Your task to perform on an android device: turn on location history Image 0: 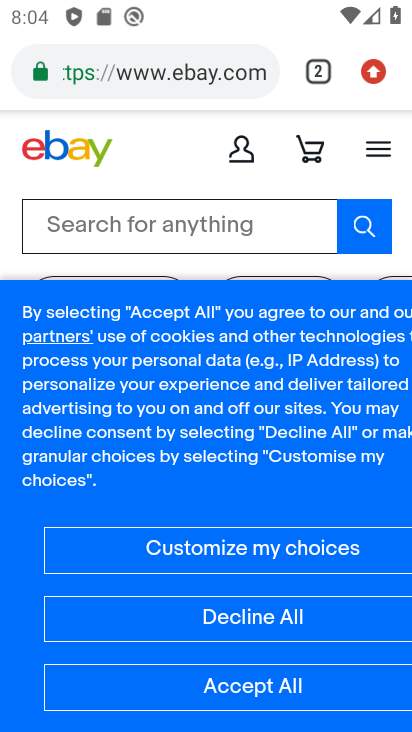
Step 0: press home button
Your task to perform on an android device: turn on location history Image 1: 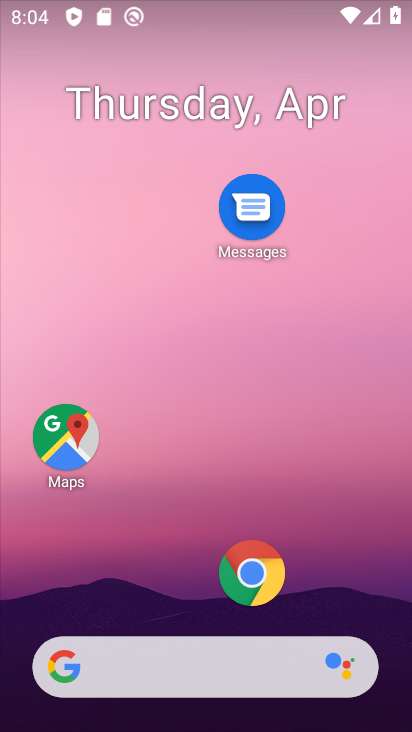
Step 1: drag from (192, 611) to (235, 107)
Your task to perform on an android device: turn on location history Image 2: 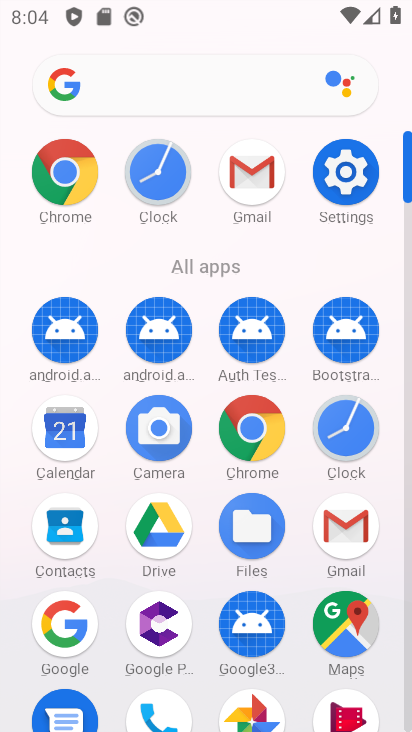
Step 2: click (340, 166)
Your task to perform on an android device: turn on location history Image 3: 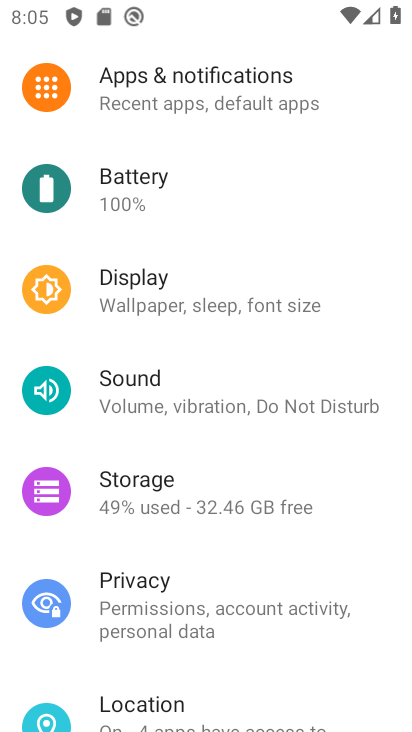
Step 3: click (201, 705)
Your task to perform on an android device: turn on location history Image 4: 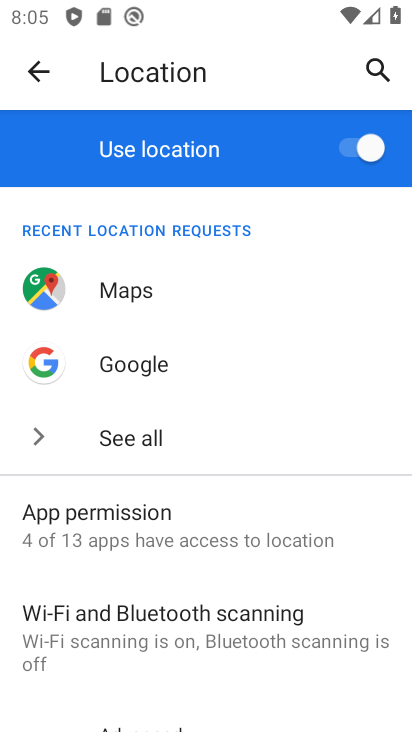
Step 4: drag from (240, 665) to (250, 175)
Your task to perform on an android device: turn on location history Image 5: 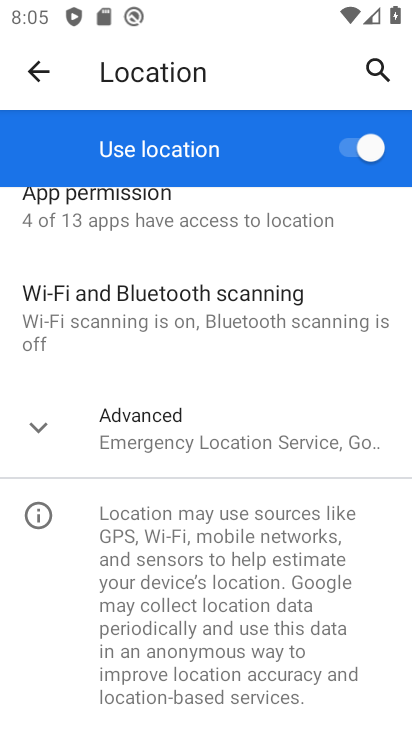
Step 5: click (43, 442)
Your task to perform on an android device: turn on location history Image 6: 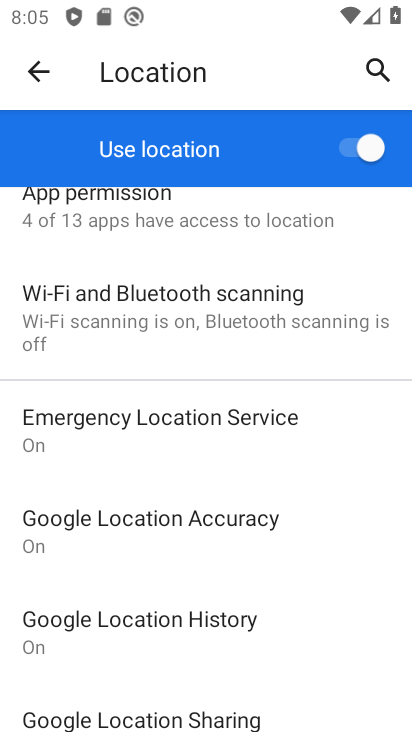
Step 6: click (129, 631)
Your task to perform on an android device: turn on location history Image 7: 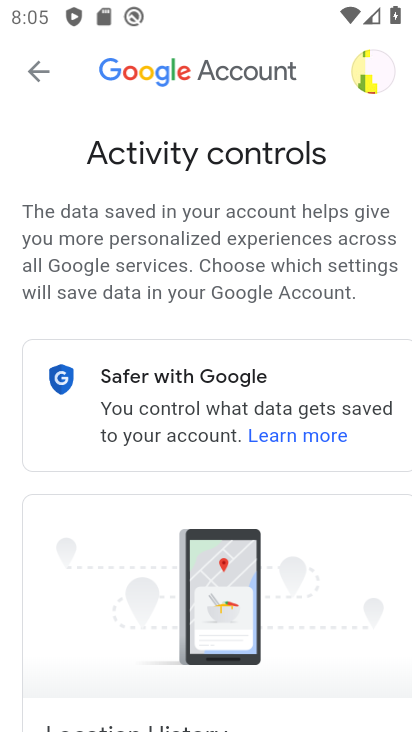
Step 7: task complete